Your task to perform on an android device: turn on priority inbox in the gmail app Image 0: 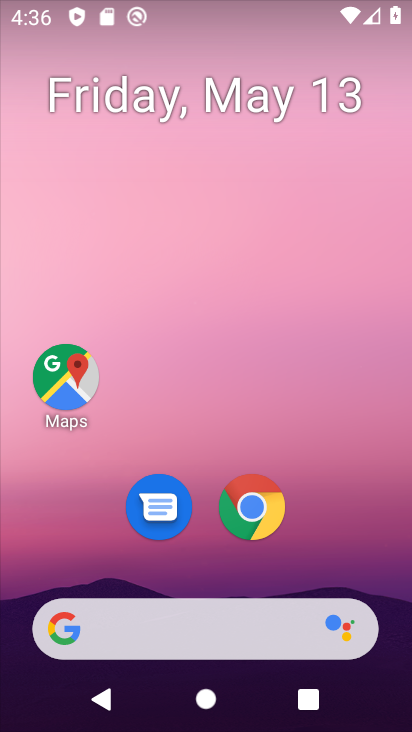
Step 0: drag from (336, 571) to (203, 61)
Your task to perform on an android device: turn on priority inbox in the gmail app Image 1: 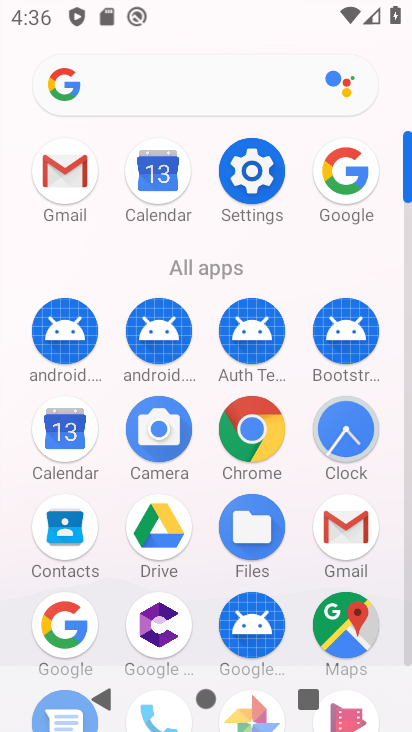
Step 1: click (353, 540)
Your task to perform on an android device: turn on priority inbox in the gmail app Image 2: 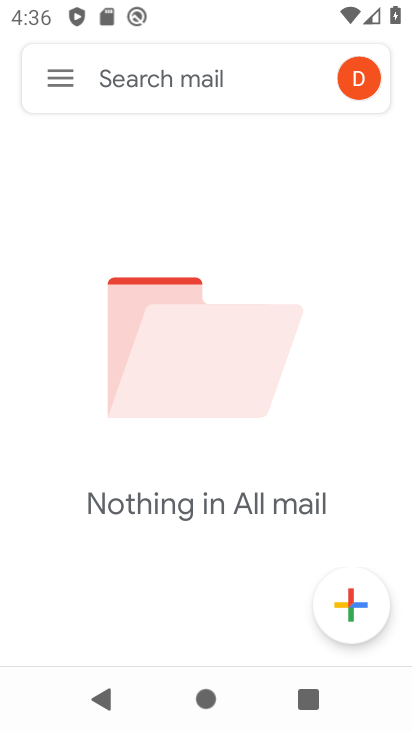
Step 2: click (63, 82)
Your task to perform on an android device: turn on priority inbox in the gmail app Image 3: 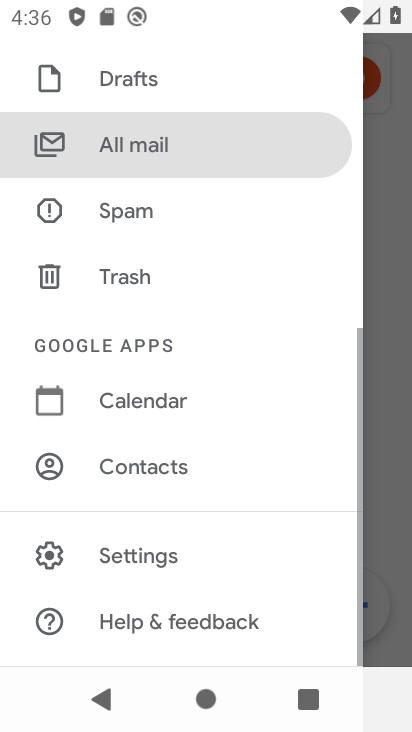
Step 3: drag from (148, 606) to (152, 414)
Your task to perform on an android device: turn on priority inbox in the gmail app Image 4: 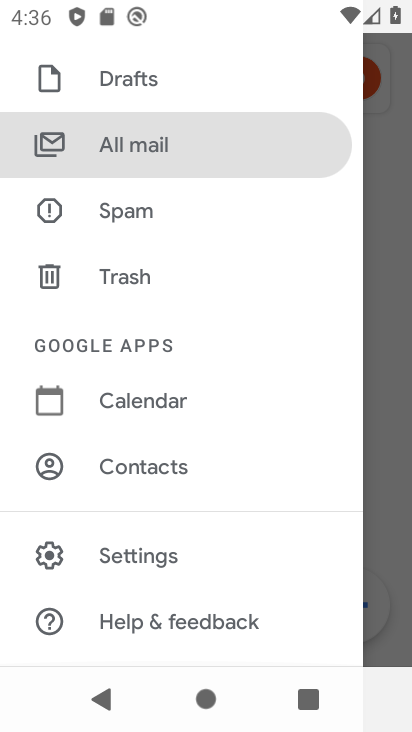
Step 4: click (167, 549)
Your task to perform on an android device: turn on priority inbox in the gmail app Image 5: 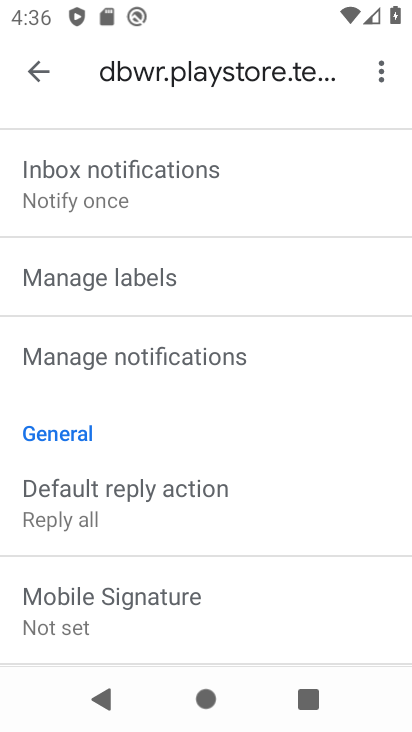
Step 5: drag from (193, 200) to (188, 629)
Your task to perform on an android device: turn on priority inbox in the gmail app Image 6: 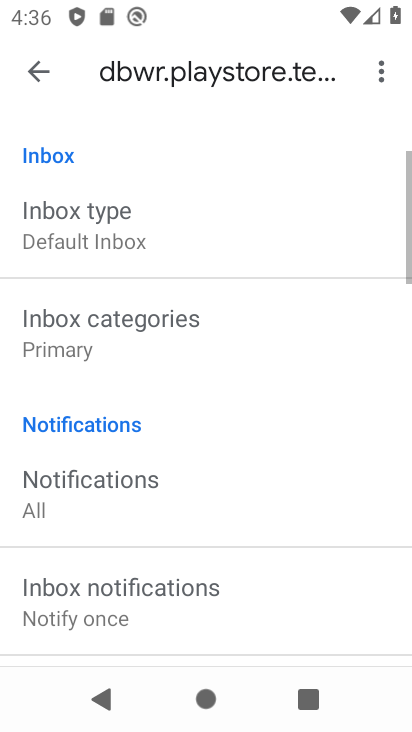
Step 6: click (144, 233)
Your task to perform on an android device: turn on priority inbox in the gmail app Image 7: 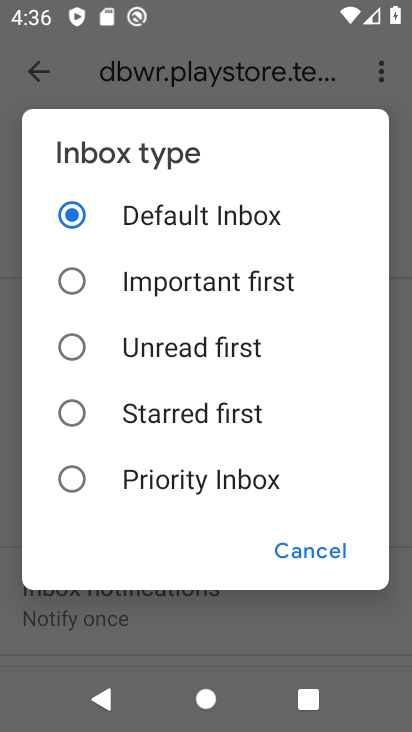
Step 7: click (172, 480)
Your task to perform on an android device: turn on priority inbox in the gmail app Image 8: 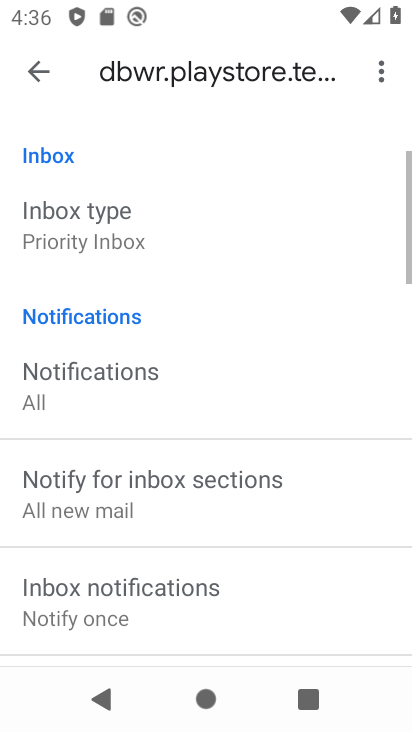
Step 8: task complete